Your task to perform on an android device: allow cookies in the chrome app Image 0: 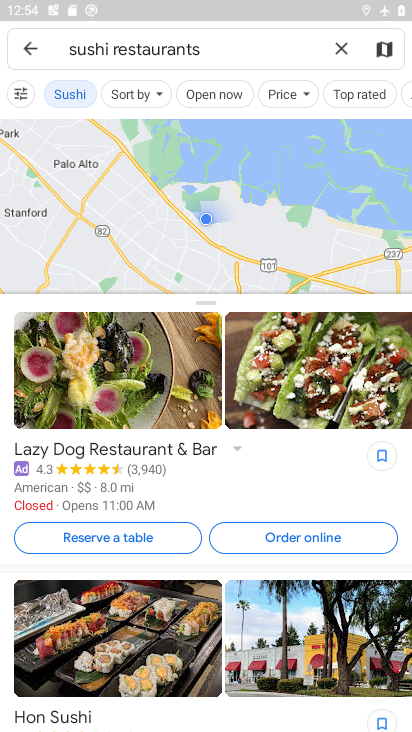
Step 0: press home button
Your task to perform on an android device: allow cookies in the chrome app Image 1: 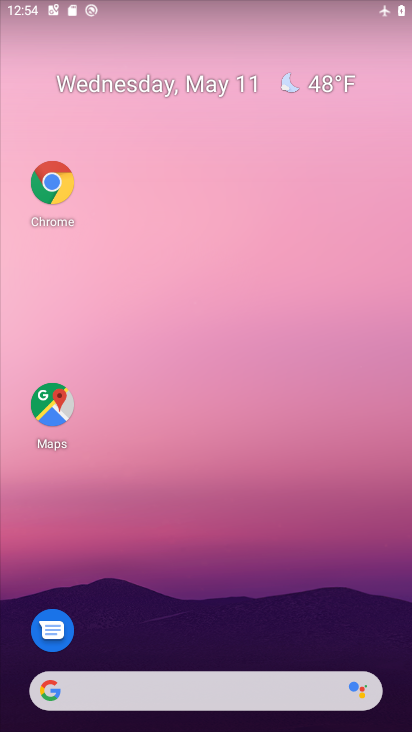
Step 1: drag from (201, 649) to (249, 18)
Your task to perform on an android device: allow cookies in the chrome app Image 2: 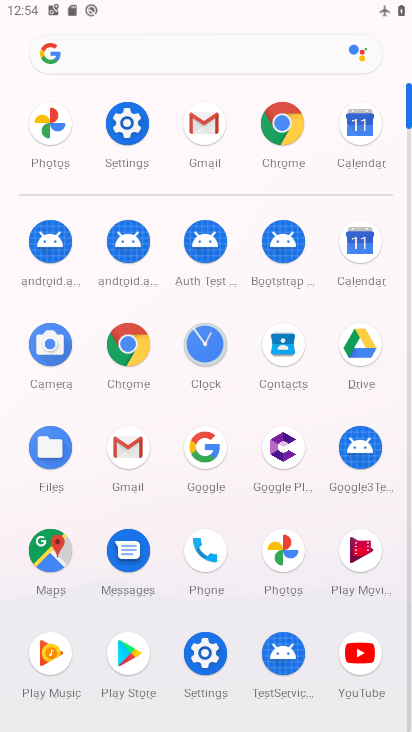
Step 2: click (135, 366)
Your task to perform on an android device: allow cookies in the chrome app Image 3: 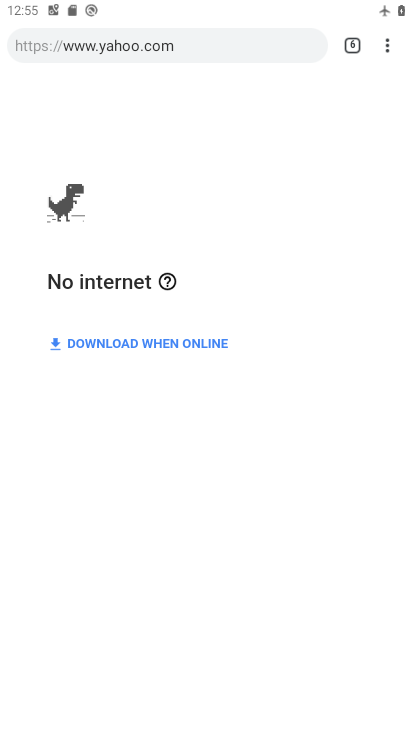
Step 3: click (389, 40)
Your task to perform on an android device: allow cookies in the chrome app Image 4: 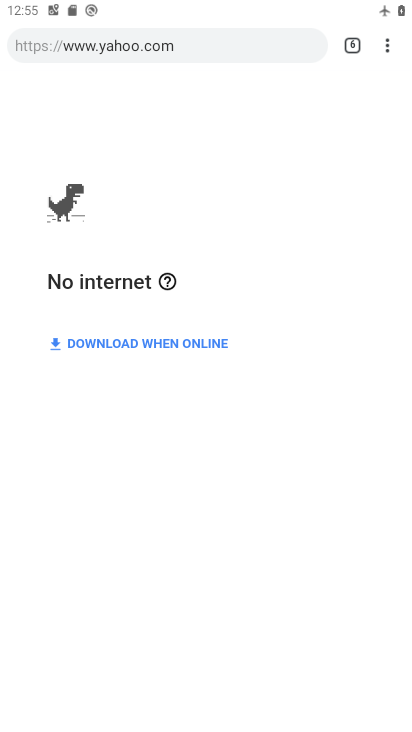
Step 4: drag from (383, 42) to (203, 509)
Your task to perform on an android device: allow cookies in the chrome app Image 5: 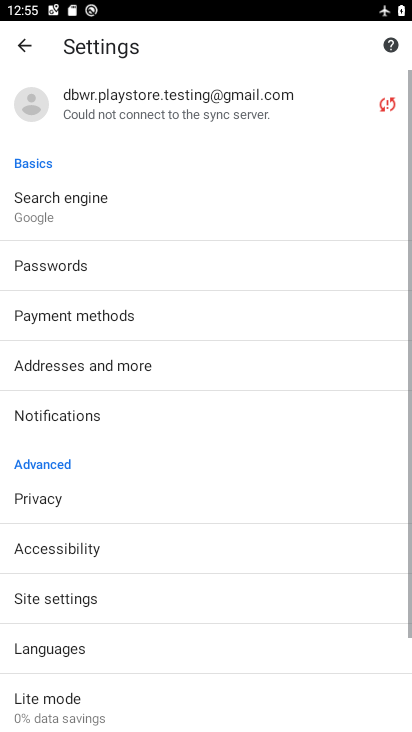
Step 5: drag from (180, 579) to (182, 377)
Your task to perform on an android device: allow cookies in the chrome app Image 6: 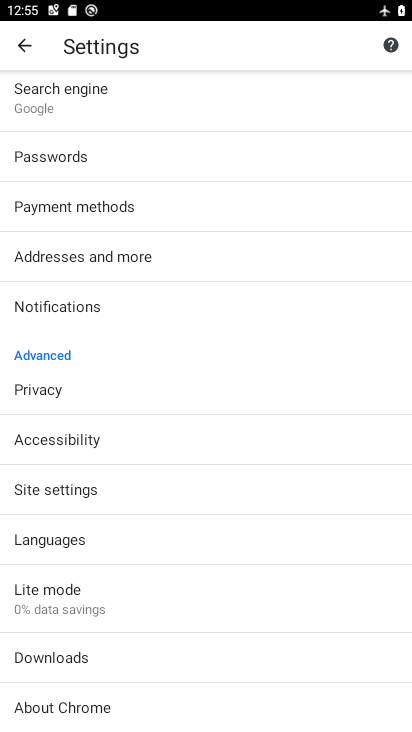
Step 6: click (28, 386)
Your task to perform on an android device: allow cookies in the chrome app Image 7: 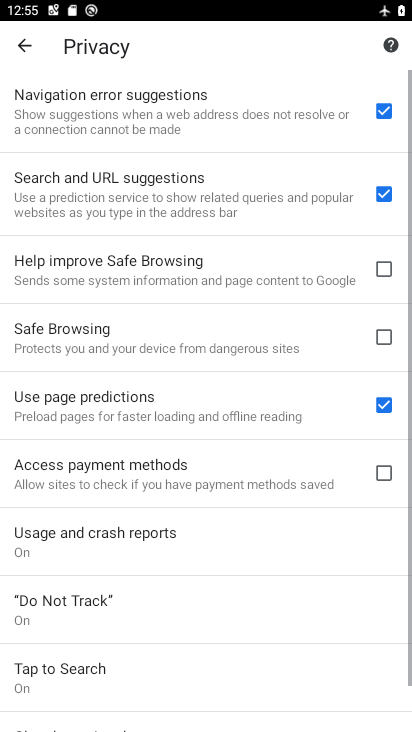
Step 7: drag from (133, 629) to (101, 98)
Your task to perform on an android device: allow cookies in the chrome app Image 8: 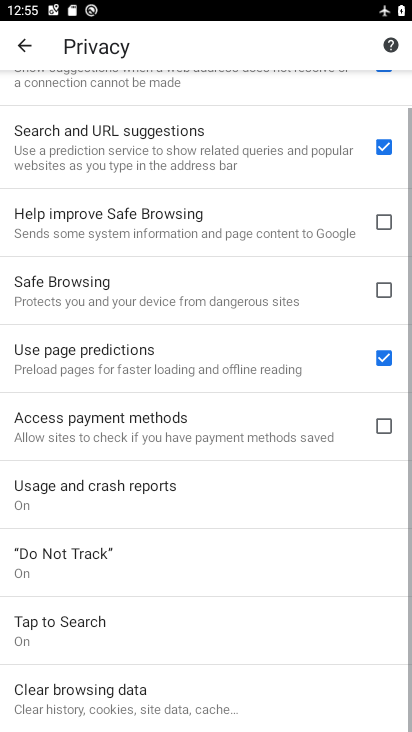
Step 8: click (28, 49)
Your task to perform on an android device: allow cookies in the chrome app Image 9: 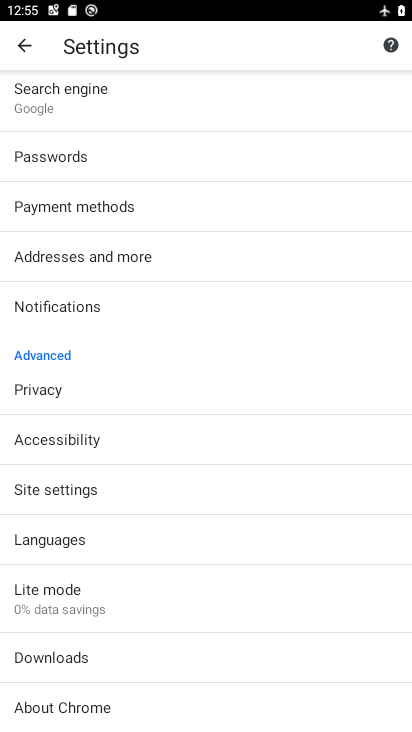
Step 9: click (70, 478)
Your task to perform on an android device: allow cookies in the chrome app Image 10: 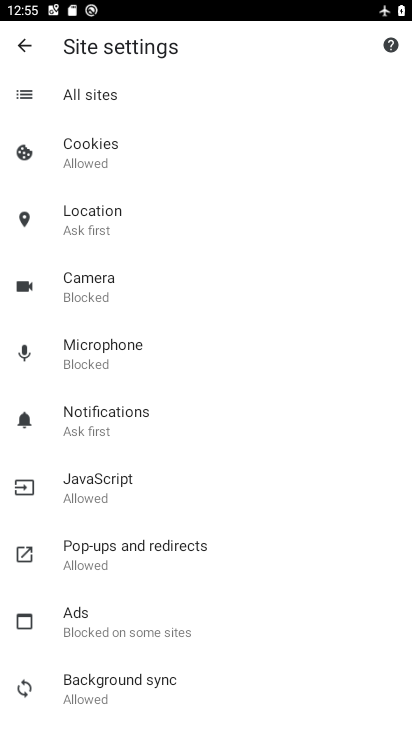
Step 10: click (117, 165)
Your task to perform on an android device: allow cookies in the chrome app Image 11: 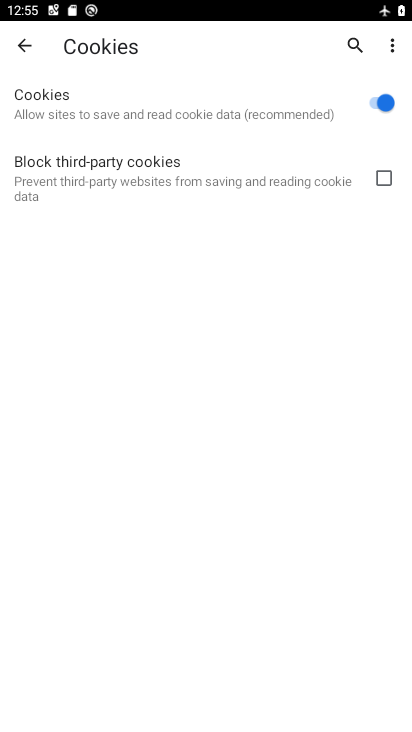
Step 11: task complete